Your task to perform on an android device: change your default location settings in chrome Image 0: 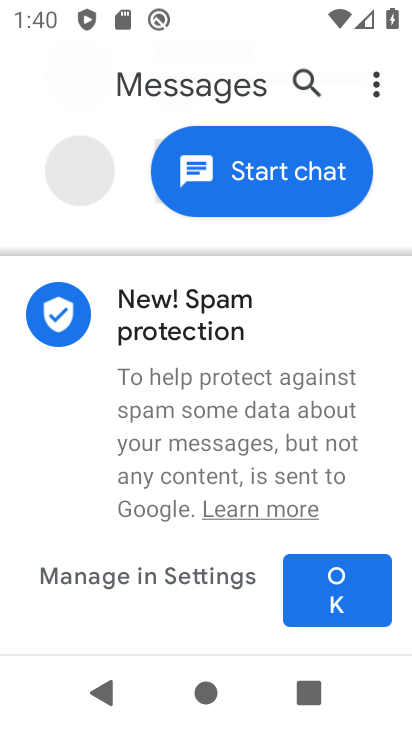
Step 0: press home button
Your task to perform on an android device: change your default location settings in chrome Image 1: 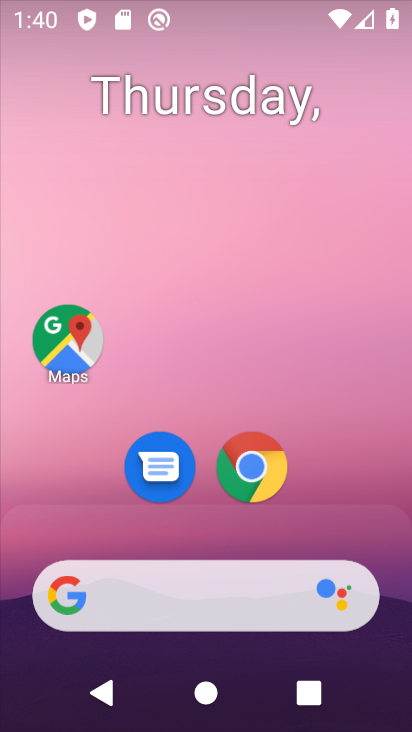
Step 1: drag from (380, 515) to (355, 102)
Your task to perform on an android device: change your default location settings in chrome Image 2: 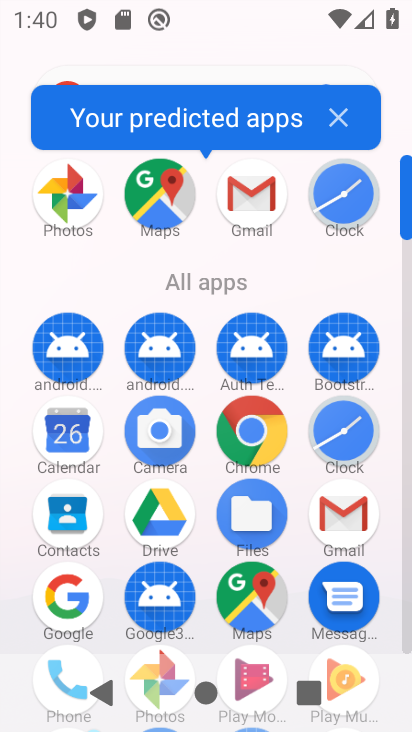
Step 2: click (245, 446)
Your task to perform on an android device: change your default location settings in chrome Image 3: 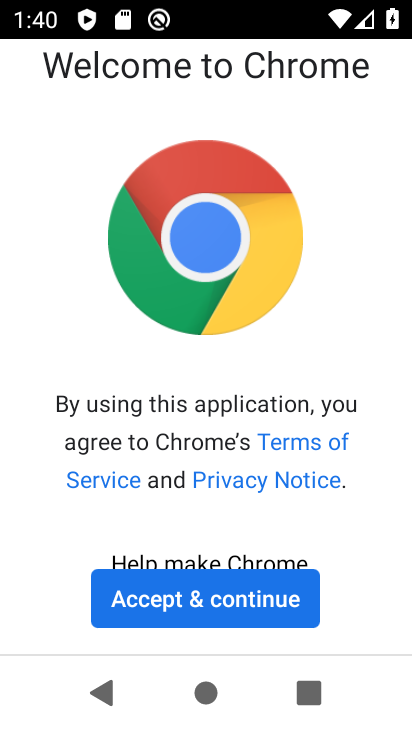
Step 3: click (229, 616)
Your task to perform on an android device: change your default location settings in chrome Image 4: 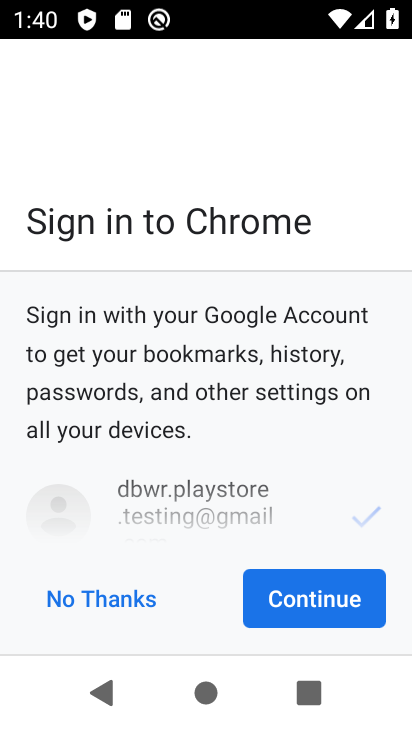
Step 4: click (306, 607)
Your task to perform on an android device: change your default location settings in chrome Image 5: 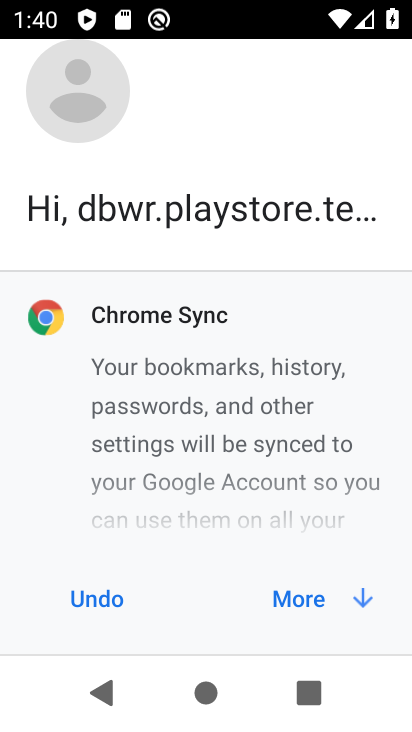
Step 5: click (306, 607)
Your task to perform on an android device: change your default location settings in chrome Image 6: 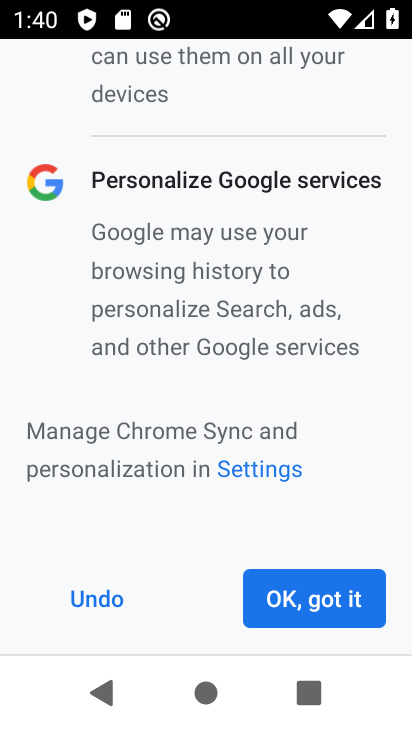
Step 6: click (305, 606)
Your task to perform on an android device: change your default location settings in chrome Image 7: 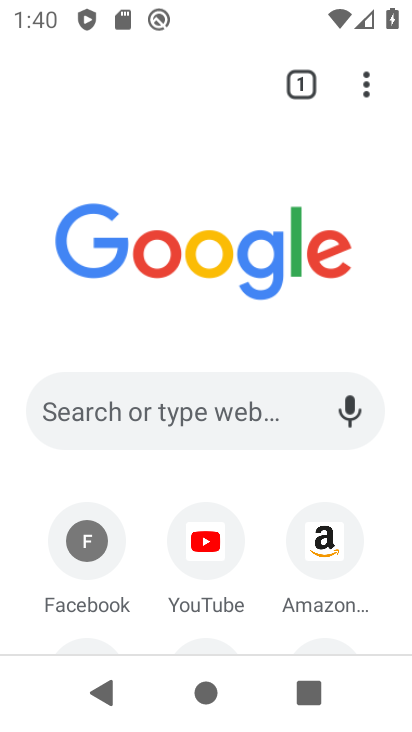
Step 7: drag from (376, 102) to (199, 522)
Your task to perform on an android device: change your default location settings in chrome Image 8: 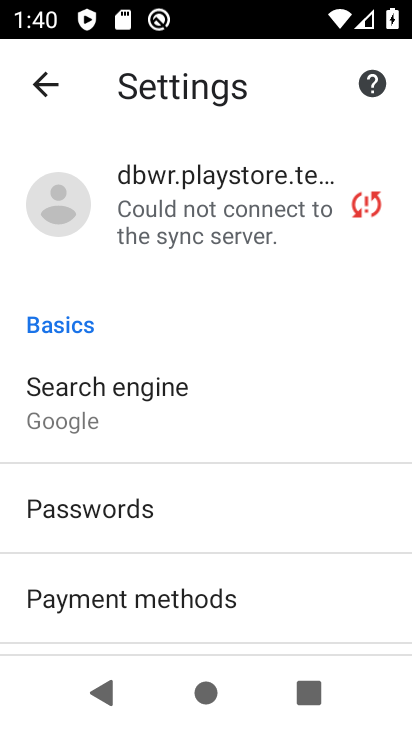
Step 8: drag from (289, 615) to (297, 276)
Your task to perform on an android device: change your default location settings in chrome Image 9: 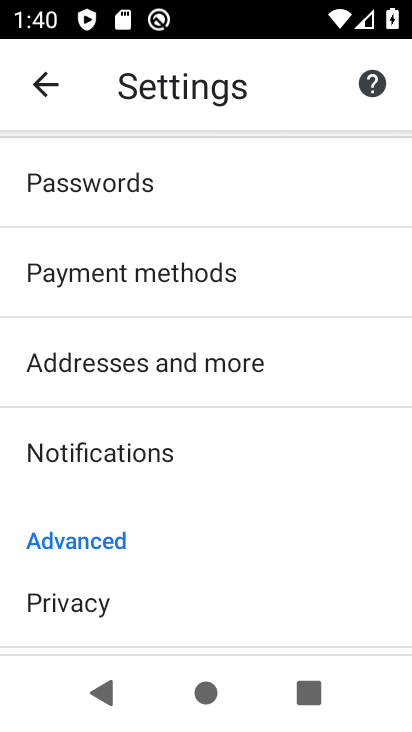
Step 9: drag from (269, 545) to (282, 270)
Your task to perform on an android device: change your default location settings in chrome Image 10: 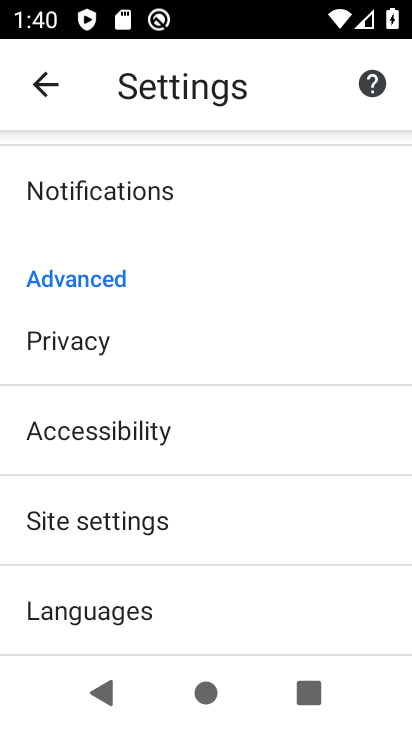
Step 10: drag from (250, 596) to (277, 295)
Your task to perform on an android device: change your default location settings in chrome Image 11: 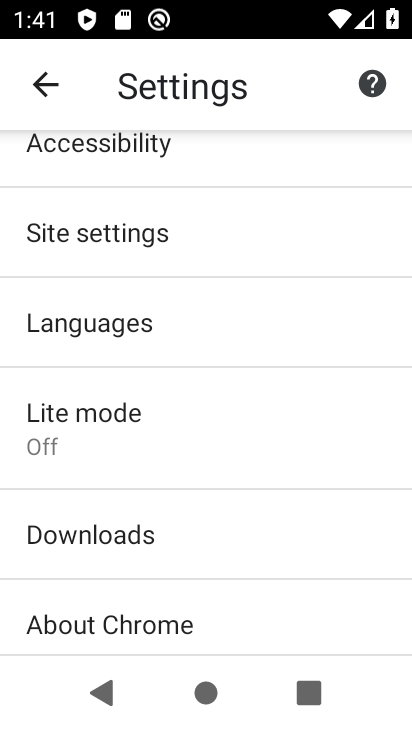
Step 11: drag from (234, 590) to (269, 242)
Your task to perform on an android device: change your default location settings in chrome Image 12: 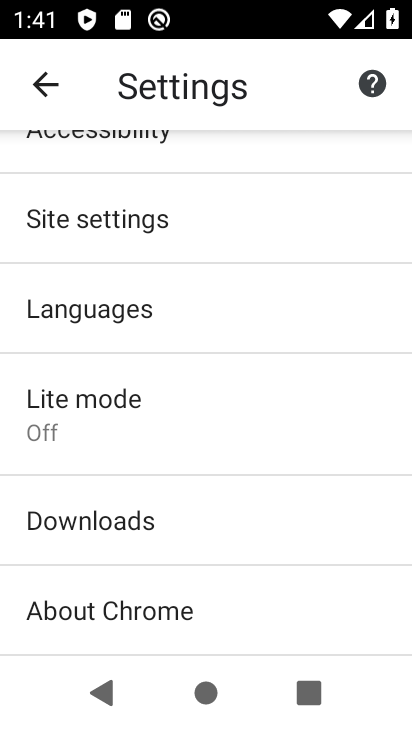
Step 12: drag from (187, 245) to (206, 587)
Your task to perform on an android device: change your default location settings in chrome Image 13: 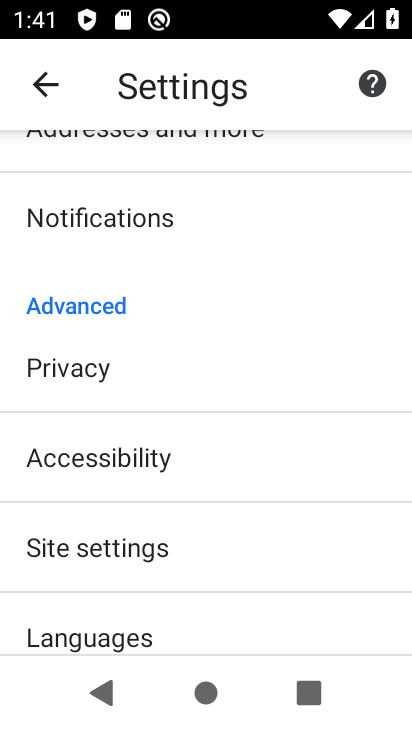
Step 13: click (145, 562)
Your task to perform on an android device: change your default location settings in chrome Image 14: 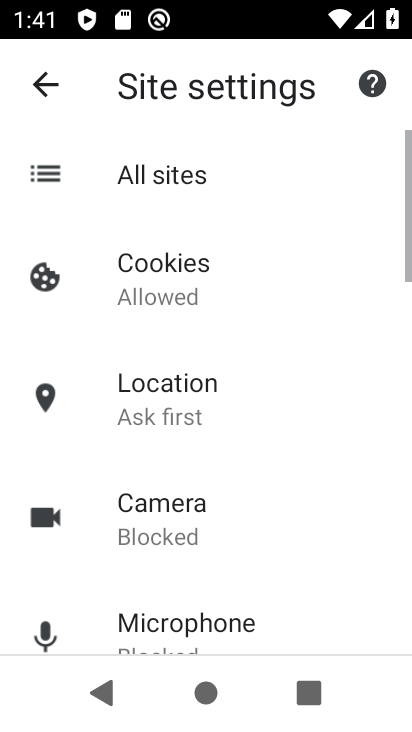
Step 14: click (185, 408)
Your task to perform on an android device: change your default location settings in chrome Image 15: 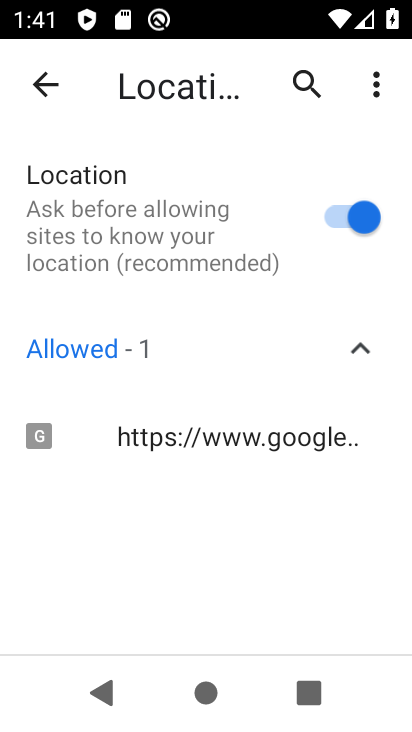
Step 15: task complete